Your task to perform on an android device: Clear all items from cart on walmart.com. Add duracell triple a to the cart on walmart.com, then select checkout. Image 0: 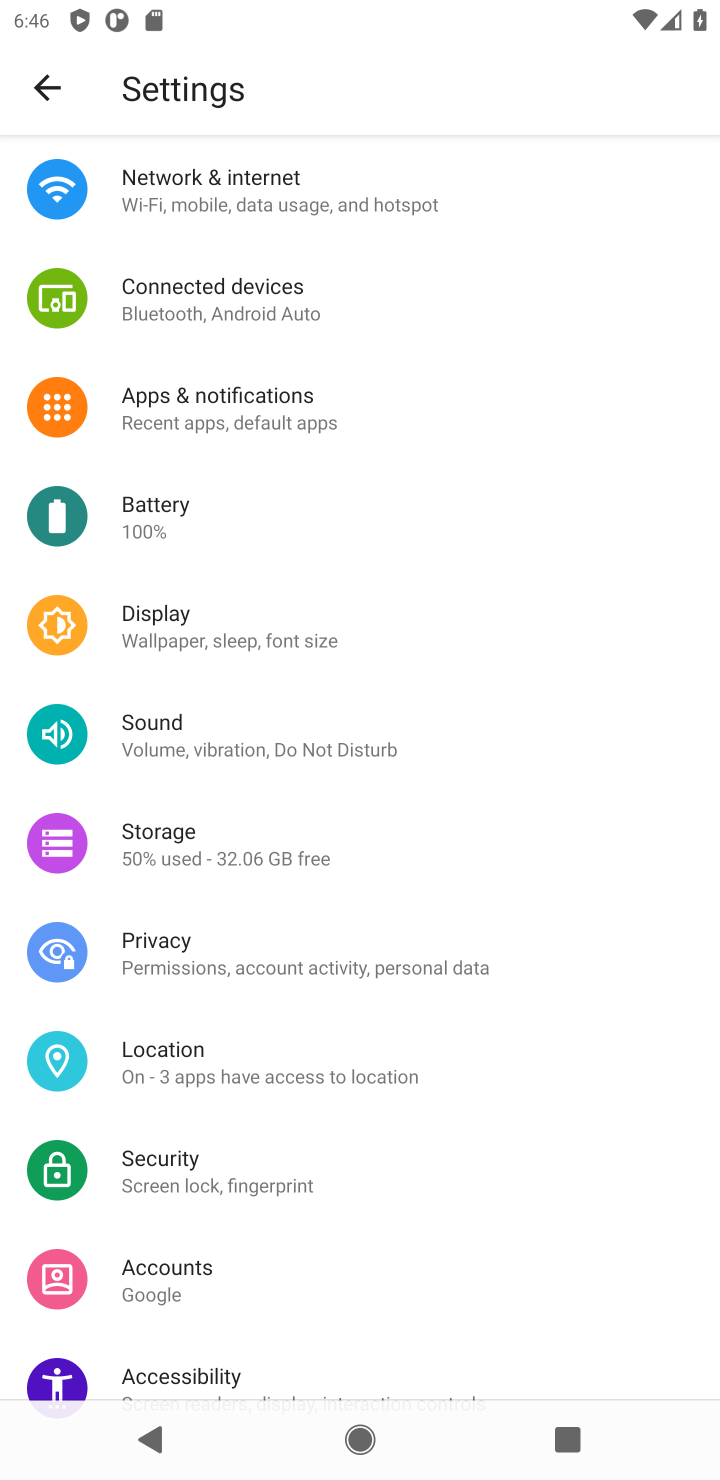
Step 0: press home button
Your task to perform on an android device: Clear all items from cart on walmart.com. Add duracell triple a to the cart on walmart.com, then select checkout. Image 1: 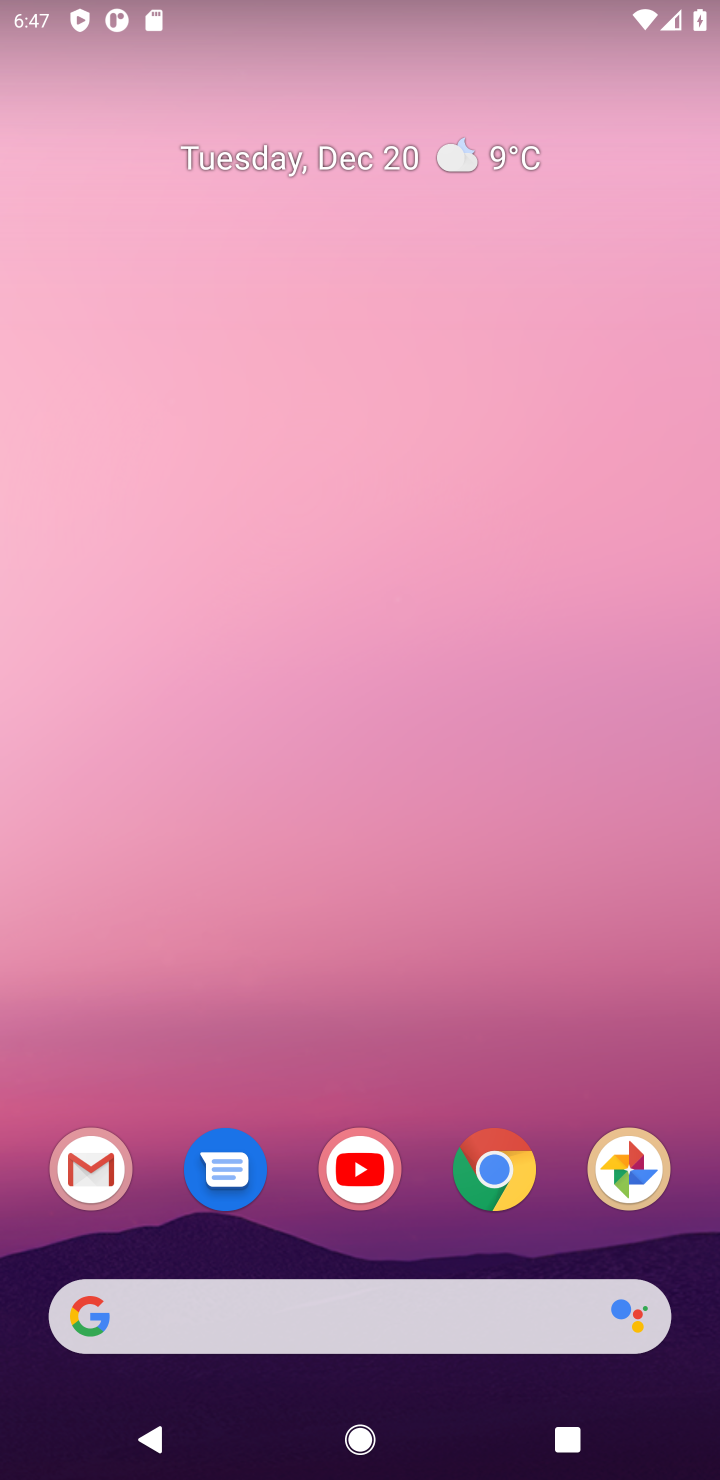
Step 1: click (484, 1166)
Your task to perform on an android device: Clear all items from cart on walmart.com. Add duracell triple a to the cart on walmart.com, then select checkout. Image 2: 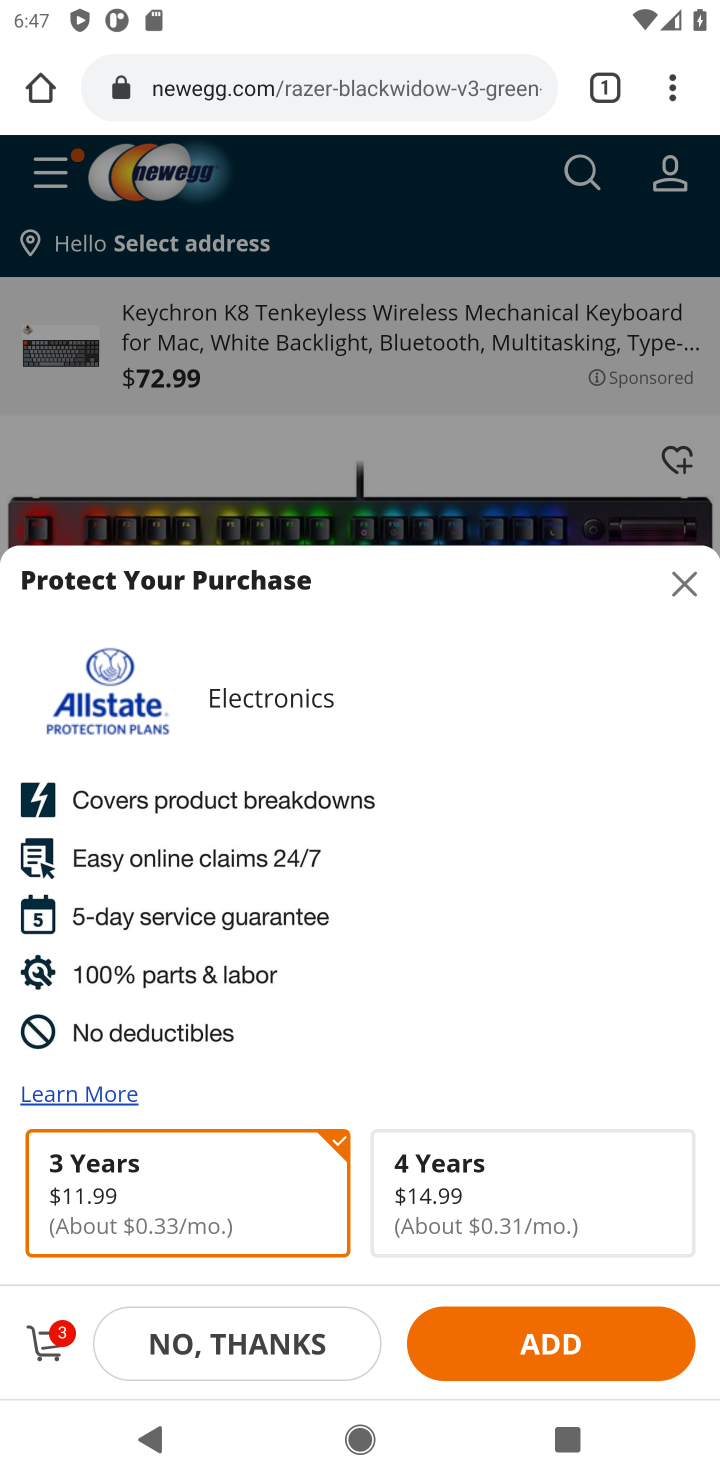
Step 2: click (324, 100)
Your task to perform on an android device: Clear all items from cart on walmart.com. Add duracell triple a to the cart on walmart.com, then select checkout. Image 3: 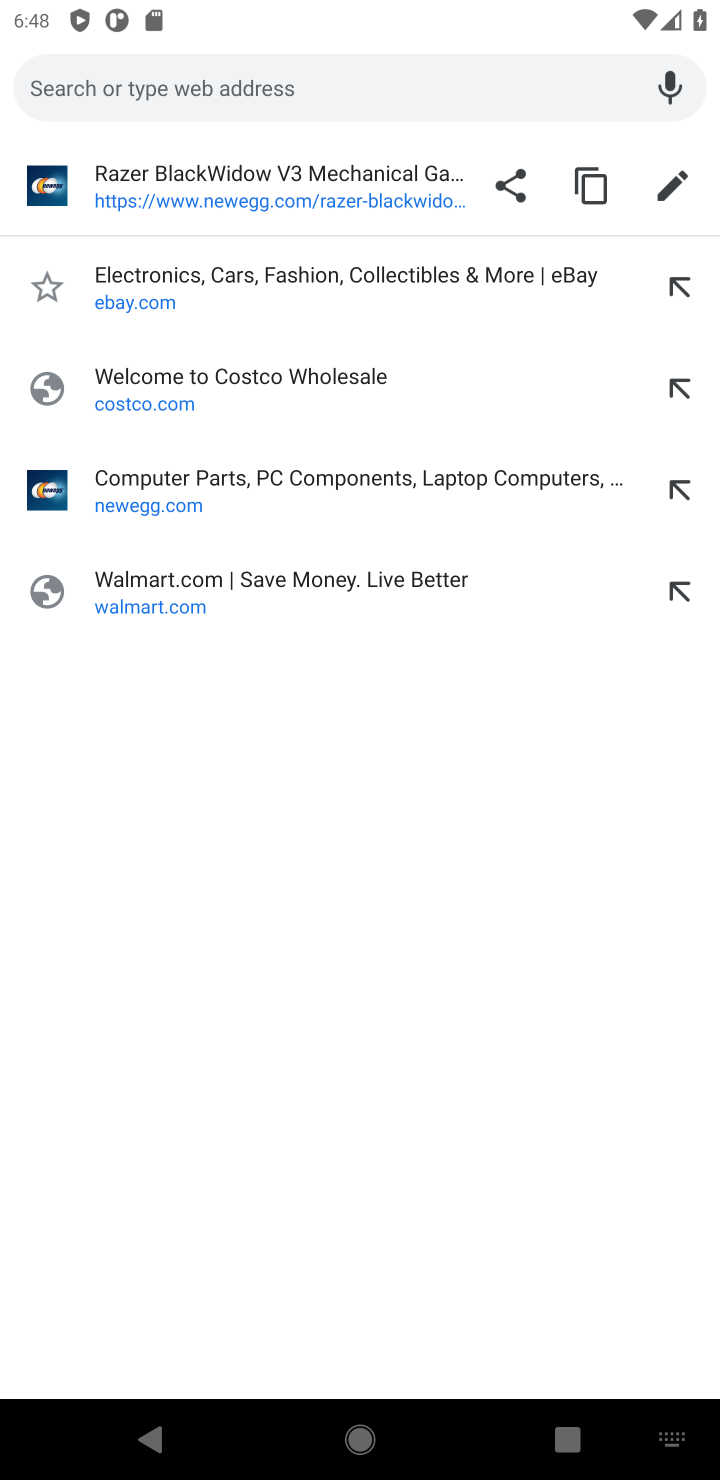
Step 3: type "walmart"
Your task to perform on an android device: Clear all items from cart on walmart.com. Add duracell triple a to the cart on walmart.com, then select checkout. Image 4: 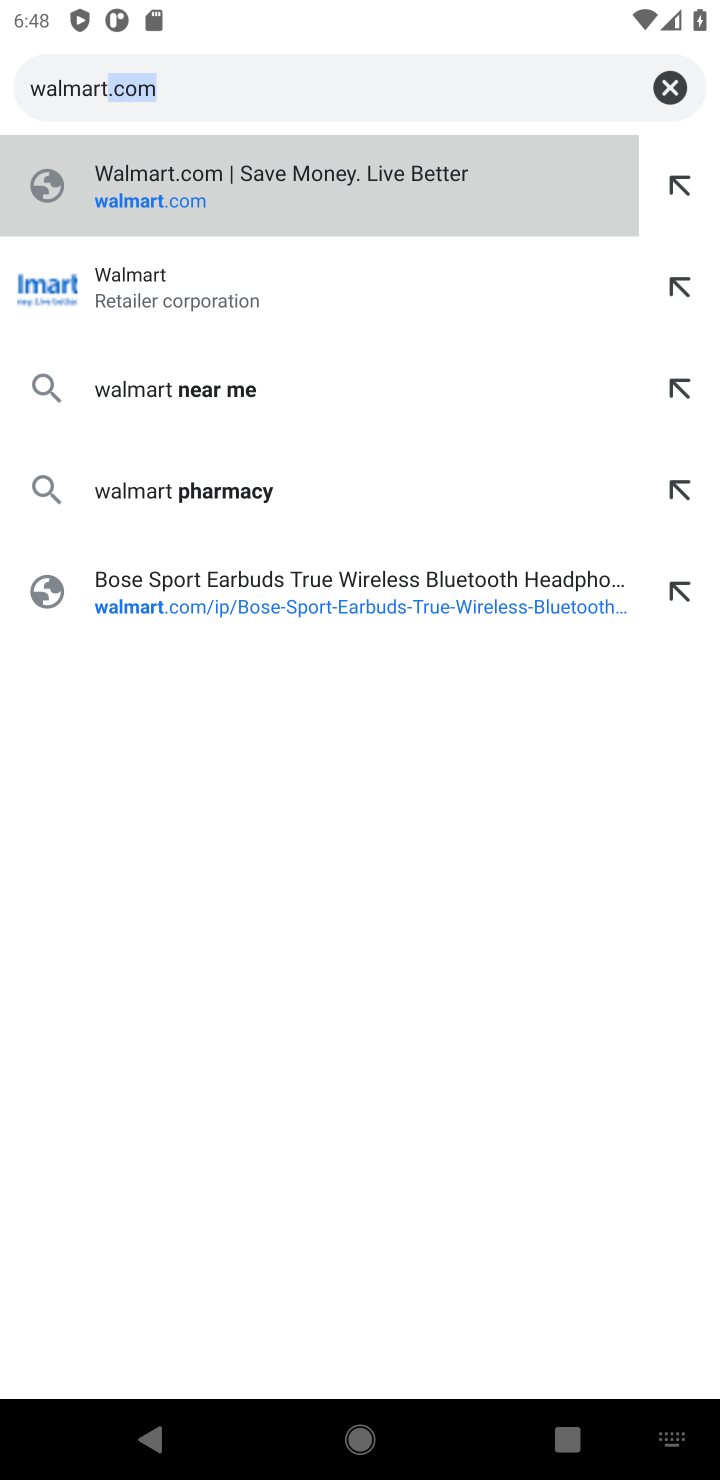
Step 4: click (327, 187)
Your task to perform on an android device: Clear all items from cart on walmart.com. Add duracell triple a to the cart on walmart.com, then select checkout. Image 5: 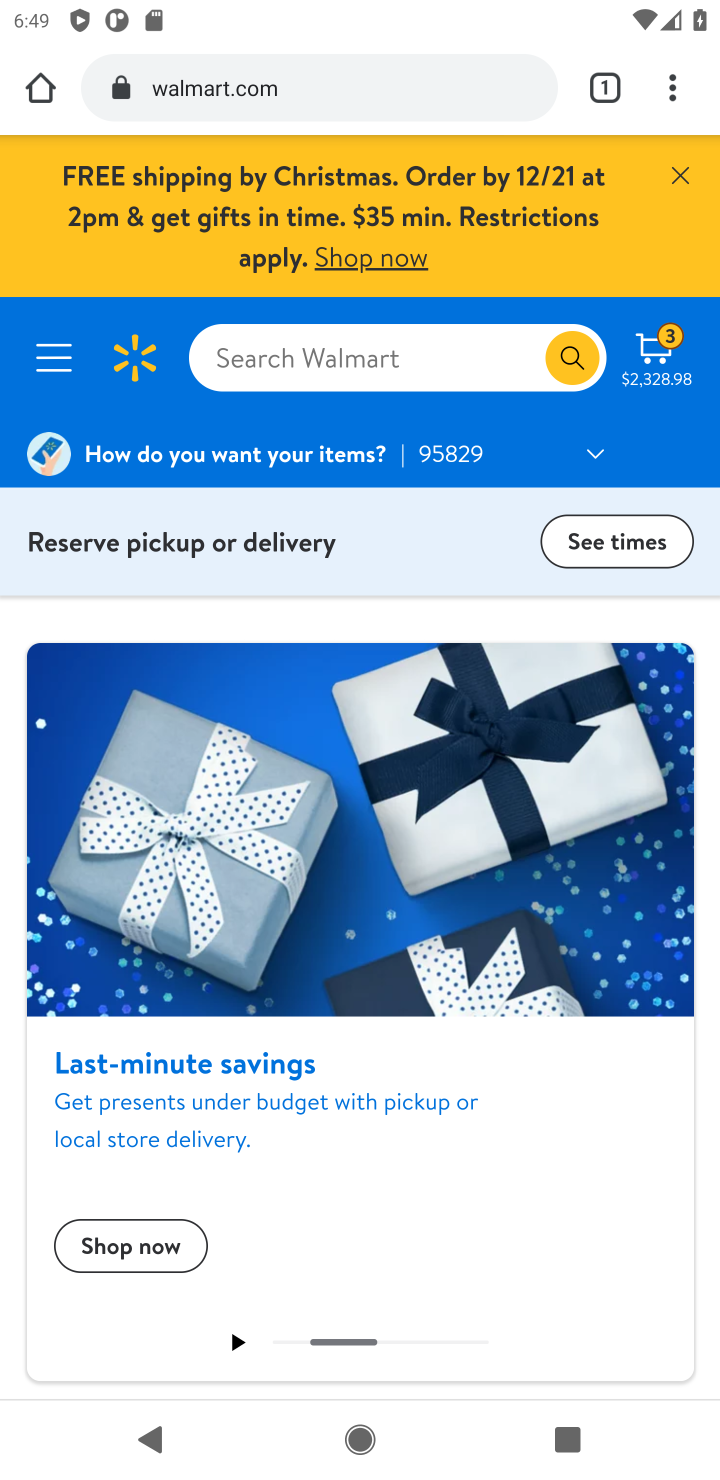
Step 5: click (302, 345)
Your task to perform on an android device: Clear all items from cart on walmart.com. Add duracell triple a to the cart on walmart.com, then select checkout. Image 6: 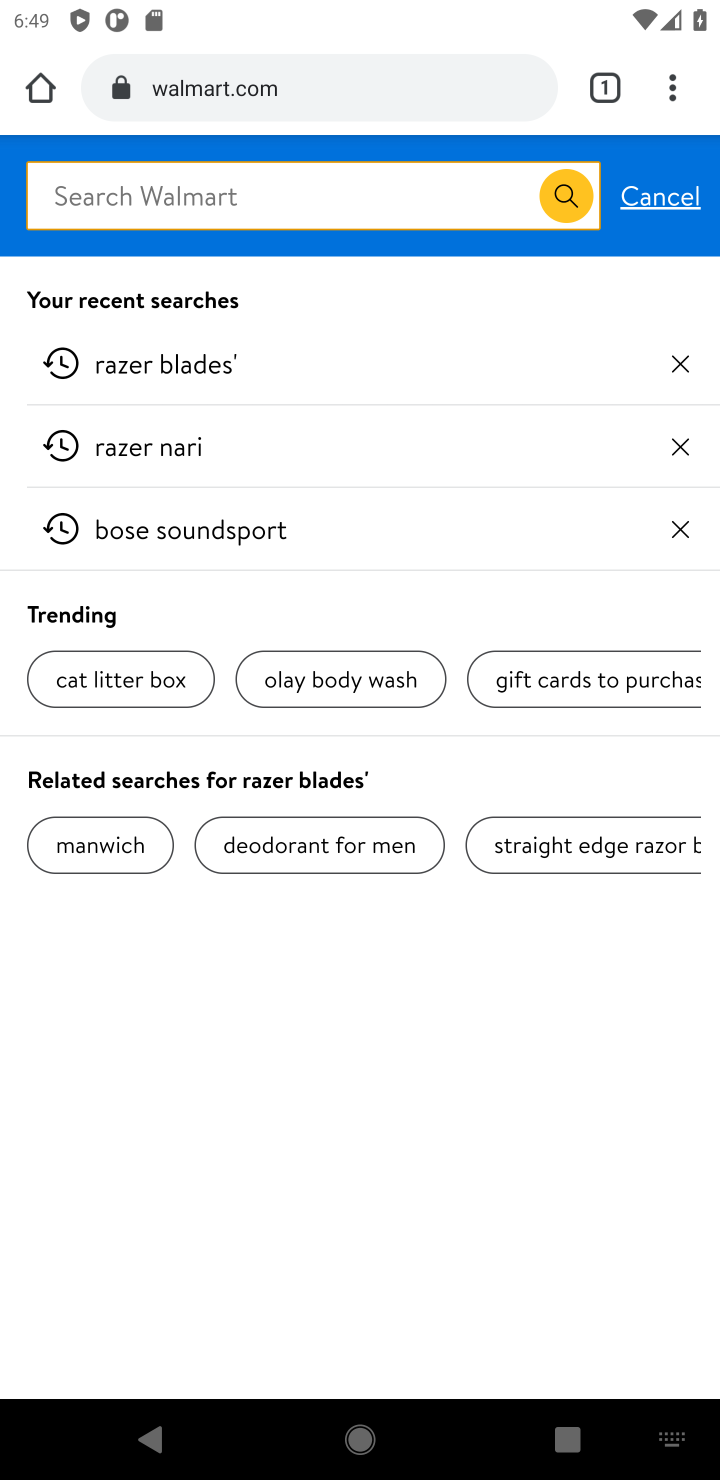
Step 6: type "duracell triple a"
Your task to perform on an android device: Clear all items from cart on walmart.com. Add duracell triple a to the cart on walmart.com, then select checkout. Image 7: 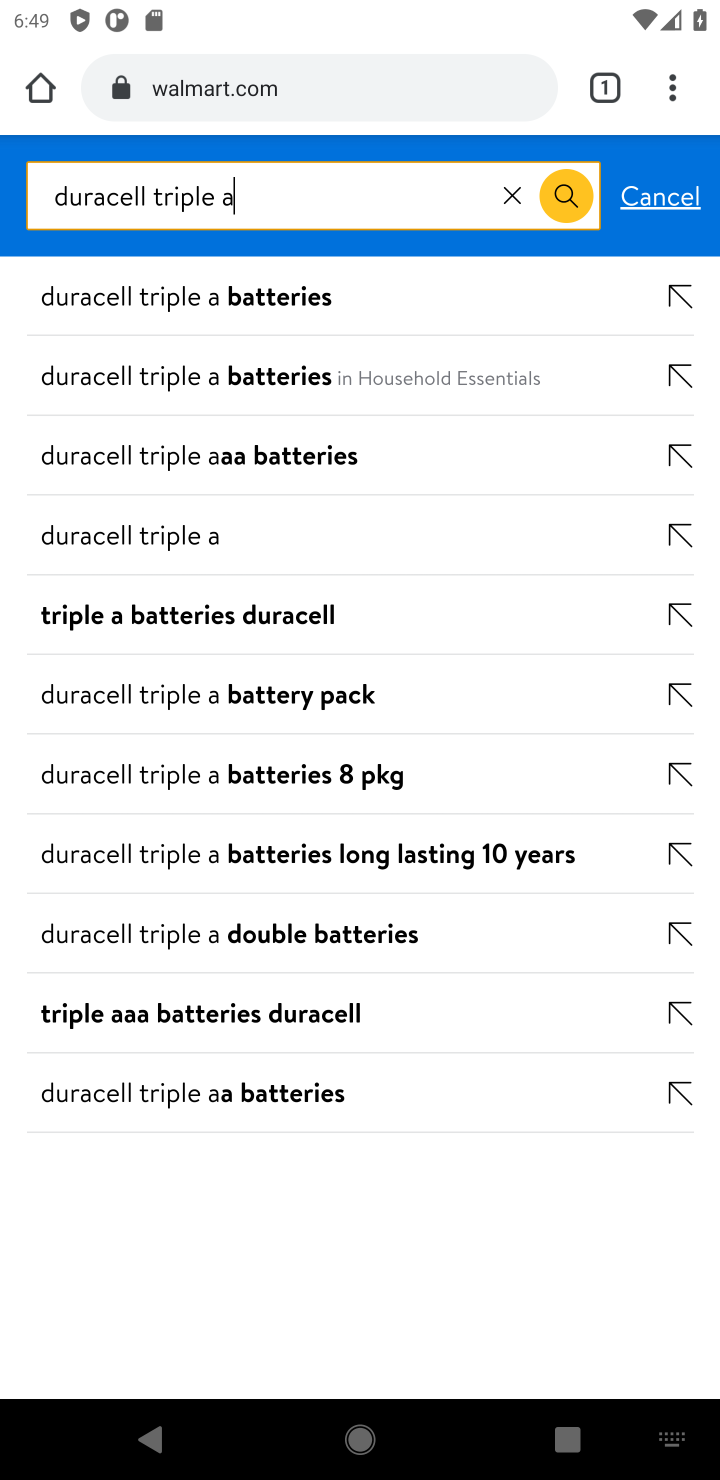
Step 7: click (232, 270)
Your task to perform on an android device: Clear all items from cart on walmart.com. Add duracell triple a to the cart on walmart.com, then select checkout. Image 8: 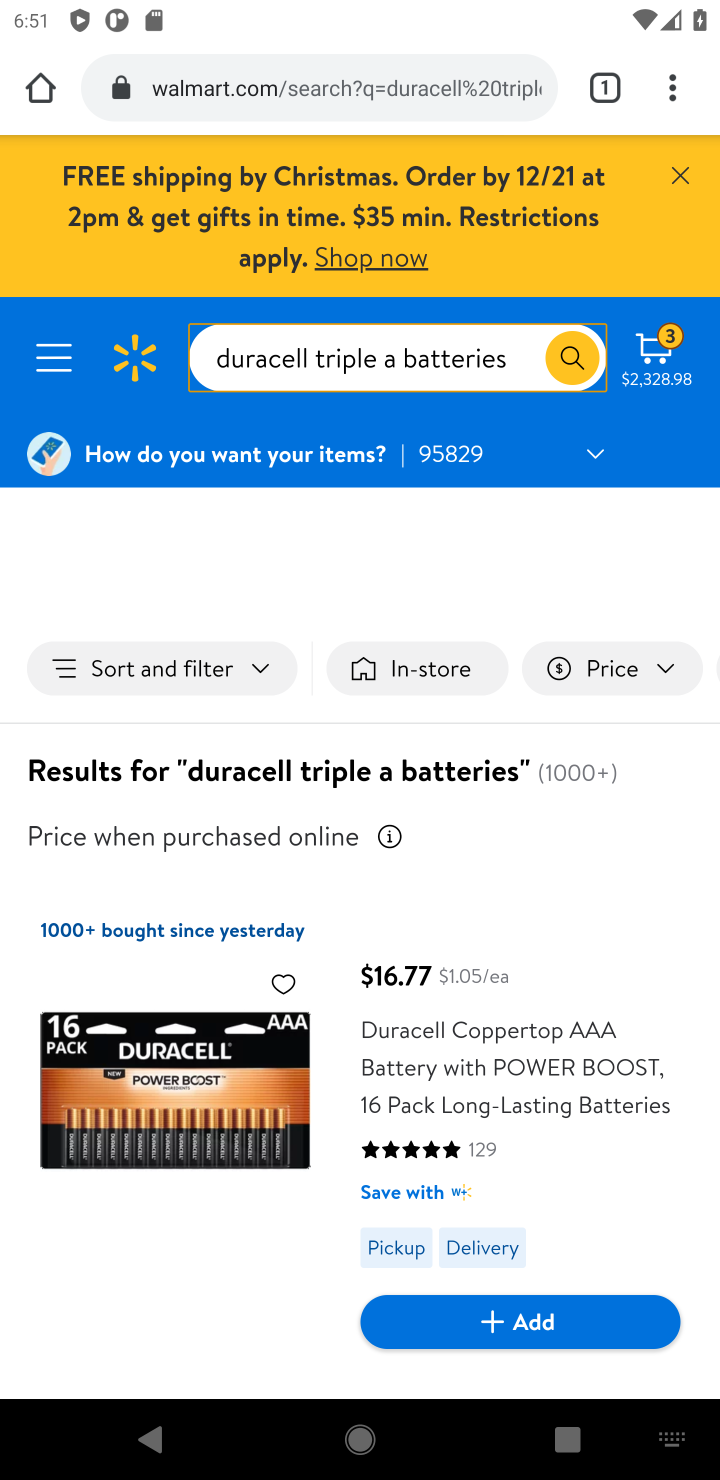
Step 8: task complete